Your task to perform on an android device: Open the web browser Image 0: 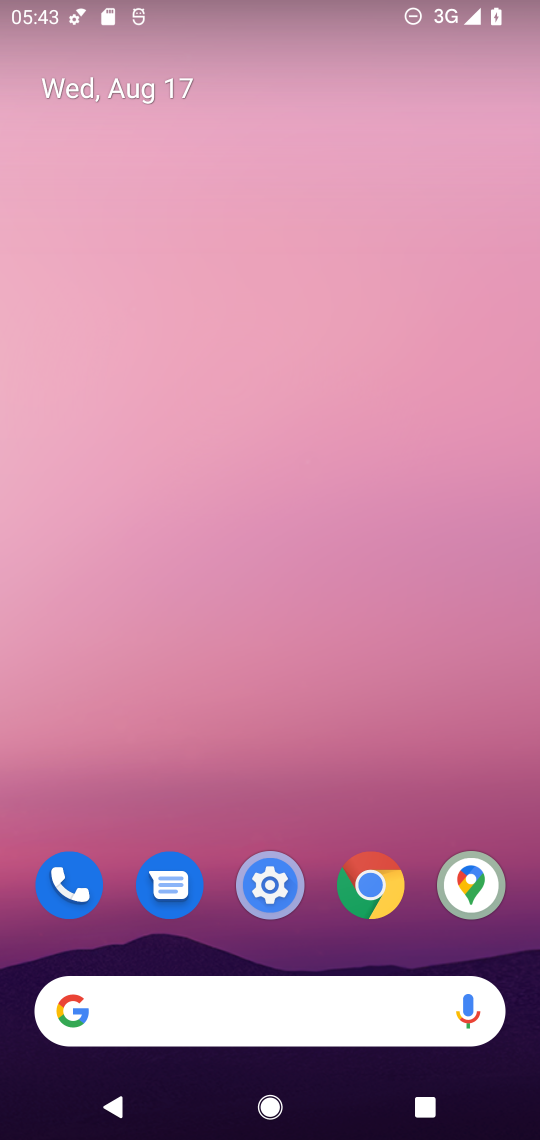
Step 0: click (373, 879)
Your task to perform on an android device: Open the web browser Image 1: 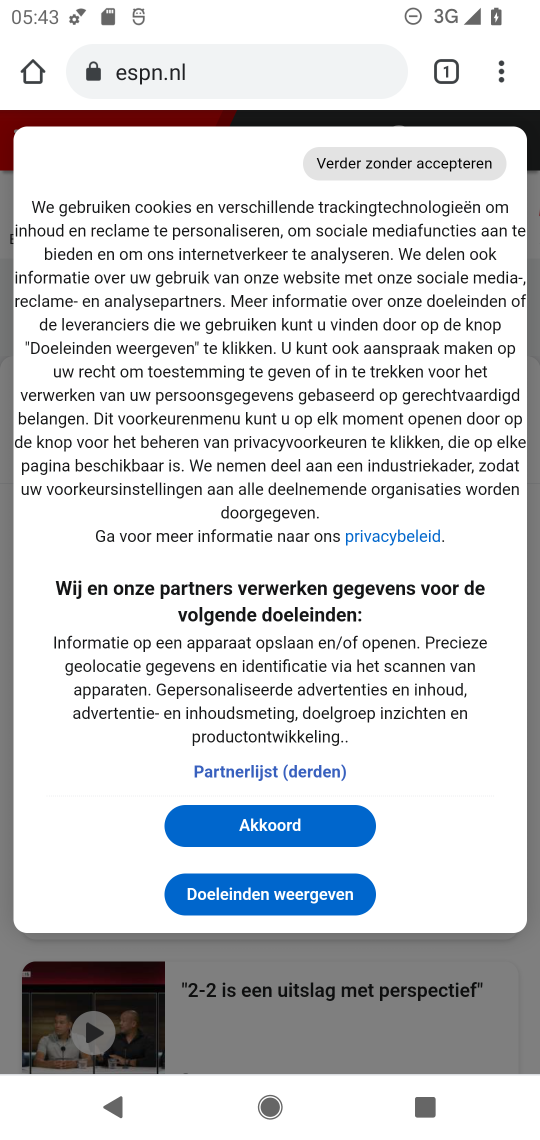
Step 1: task complete